Your task to perform on an android device: Go to Google maps Image 0: 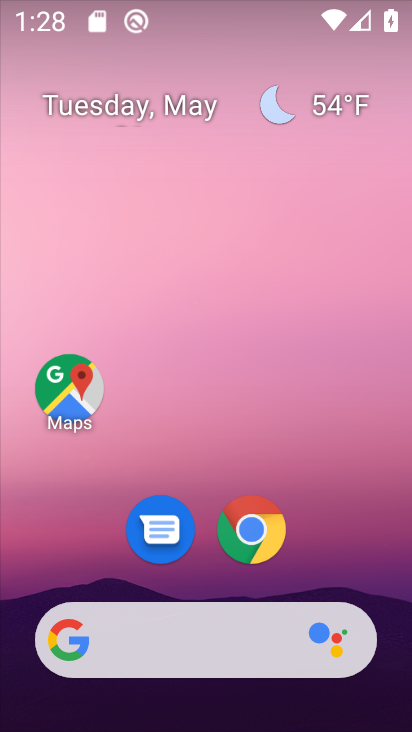
Step 0: drag from (301, 543) to (295, 307)
Your task to perform on an android device: Go to Google maps Image 1: 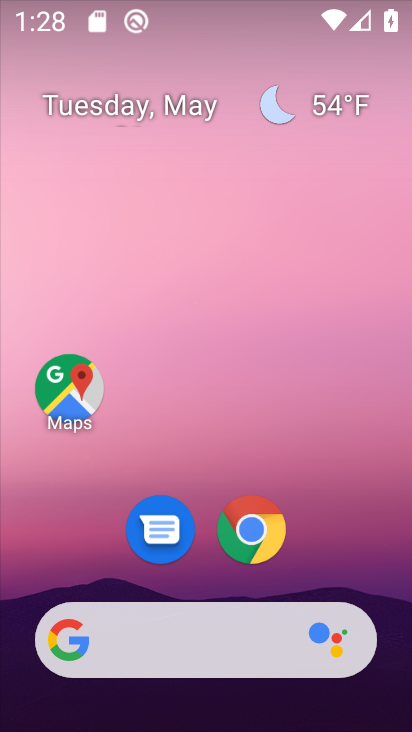
Step 1: drag from (288, 595) to (295, 322)
Your task to perform on an android device: Go to Google maps Image 2: 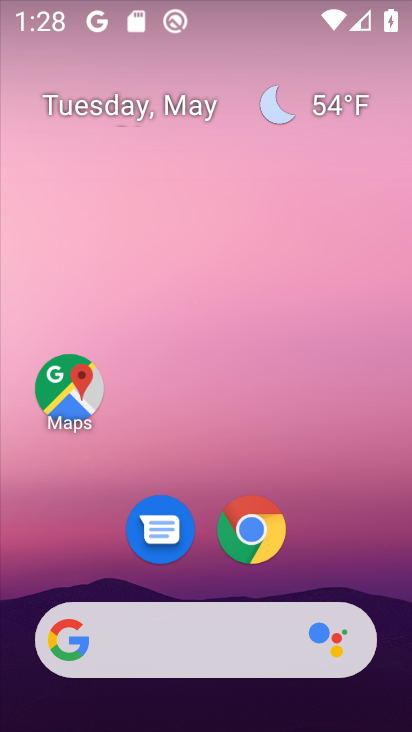
Step 2: drag from (199, 554) to (236, 170)
Your task to perform on an android device: Go to Google maps Image 3: 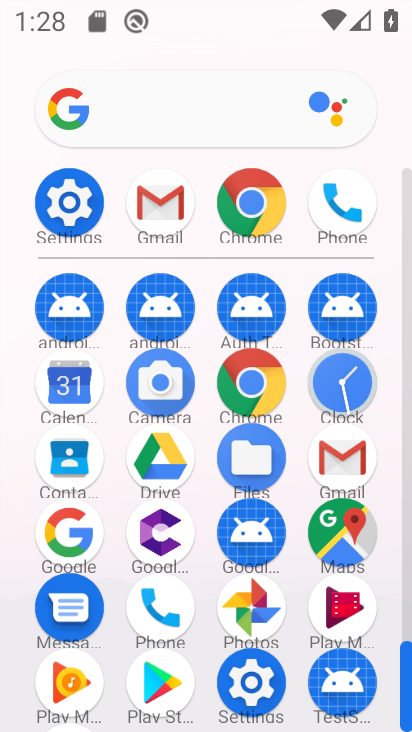
Step 3: click (337, 533)
Your task to perform on an android device: Go to Google maps Image 4: 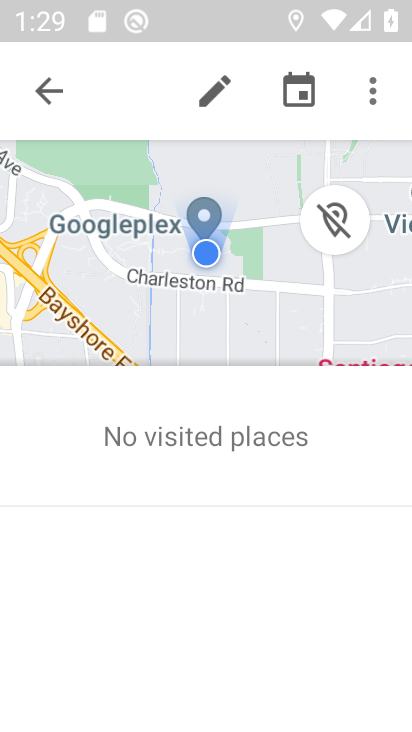
Step 4: task complete